Your task to perform on an android device: open app "Pandora - Music & Podcasts" Image 0: 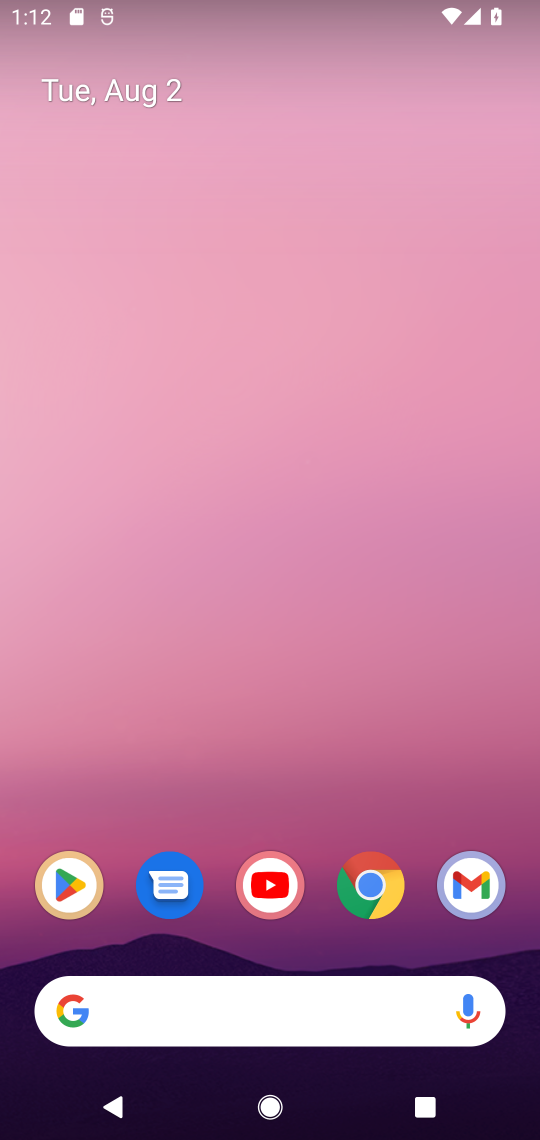
Step 0: click (67, 878)
Your task to perform on an android device: open app "Pandora - Music & Podcasts" Image 1: 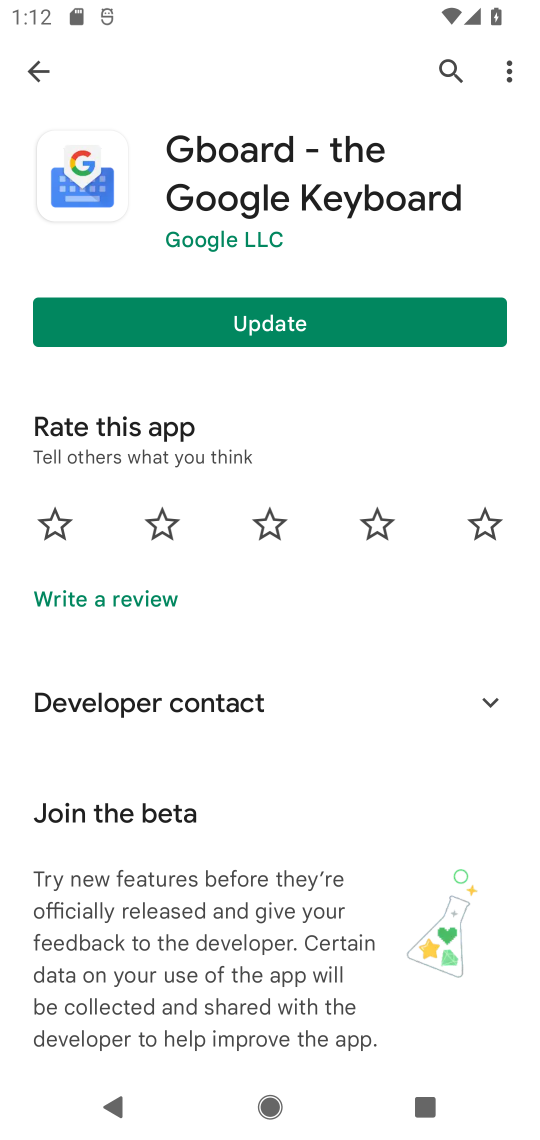
Step 1: click (445, 62)
Your task to perform on an android device: open app "Pandora - Music & Podcasts" Image 2: 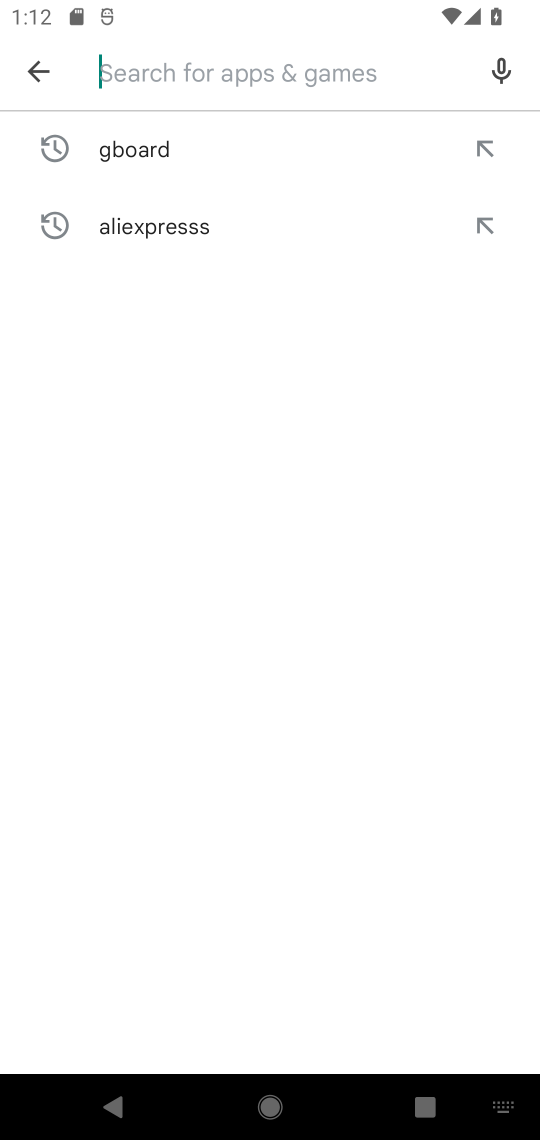
Step 2: type "pandora - music & podcasts"
Your task to perform on an android device: open app "Pandora - Music & Podcasts" Image 3: 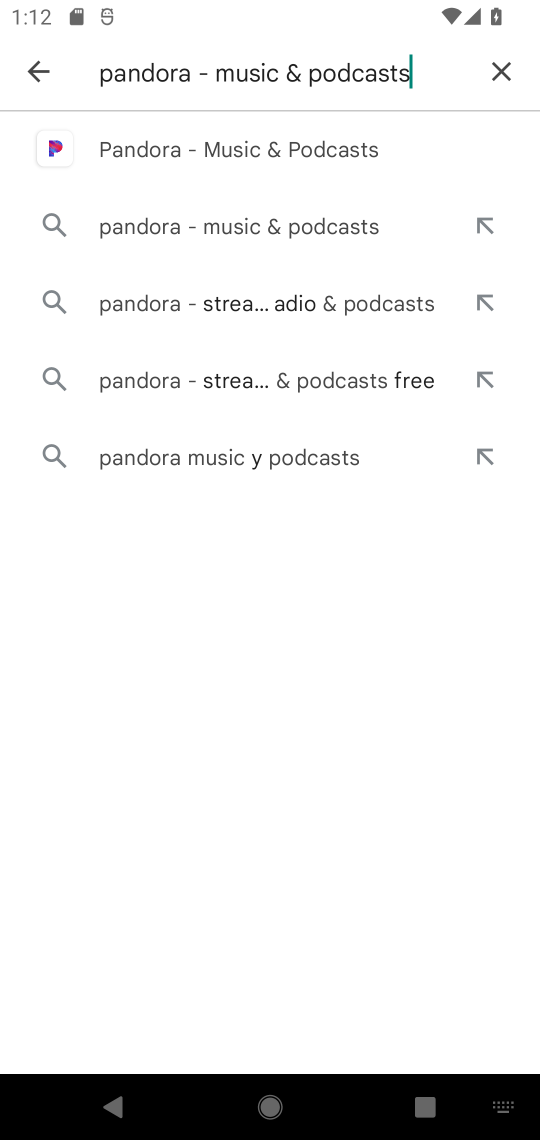
Step 3: click (93, 155)
Your task to perform on an android device: open app "Pandora - Music & Podcasts" Image 4: 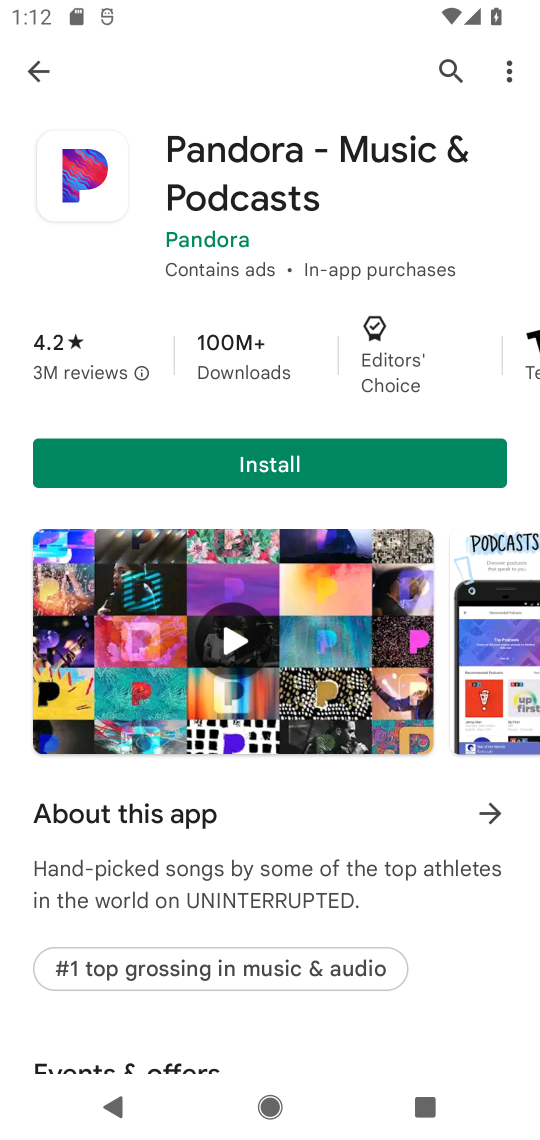
Step 4: task complete